Your task to perform on an android device: toggle pop-ups in chrome Image 0: 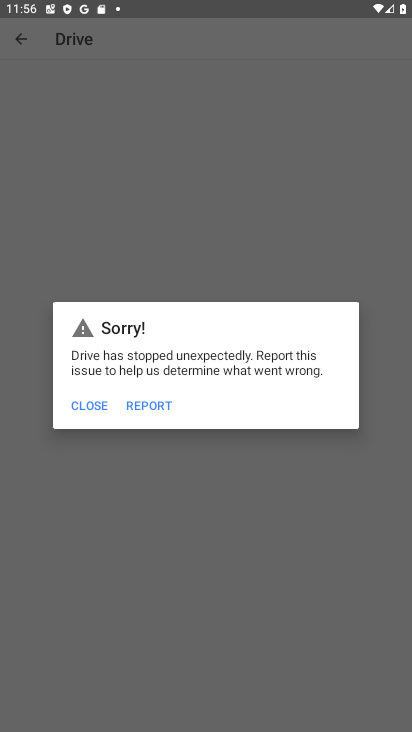
Step 0: press home button
Your task to perform on an android device: toggle pop-ups in chrome Image 1: 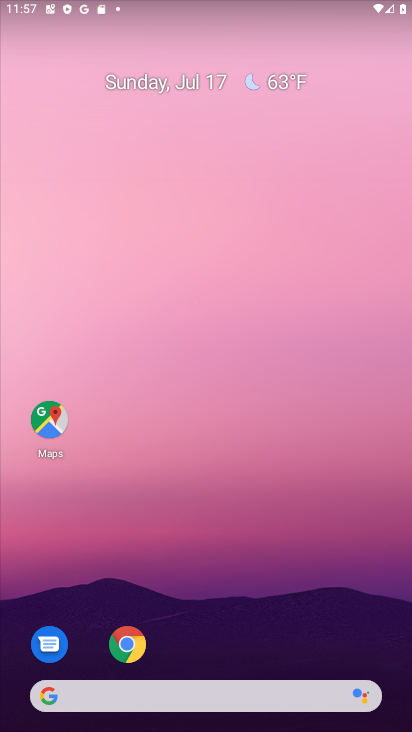
Step 1: drag from (244, 651) to (179, 287)
Your task to perform on an android device: toggle pop-ups in chrome Image 2: 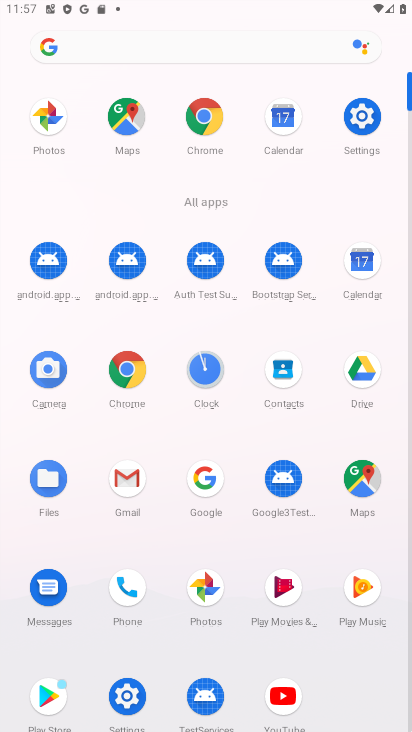
Step 2: click (202, 127)
Your task to perform on an android device: toggle pop-ups in chrome Image 3: 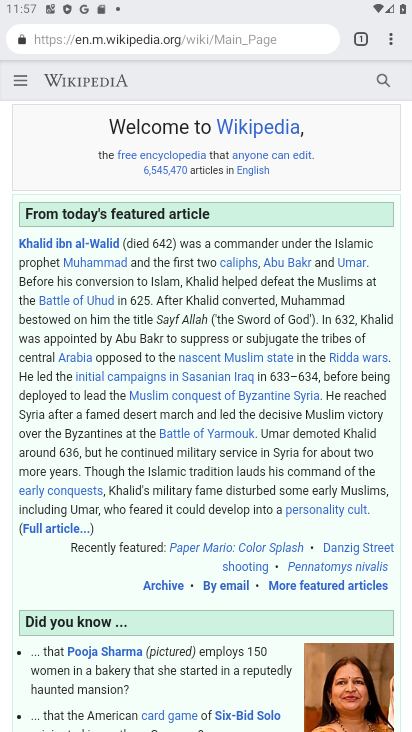
Step 3: click (395, 35)
Your task to perform on an android device: toggle pop-ups in chrome Image 4: 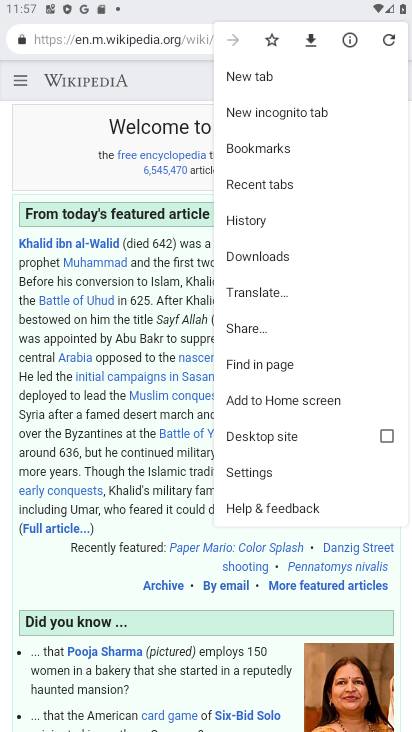
Step 4: click (286, 472)
Your task to perform on an android device: toggle pop-ups in chrome Image 5: 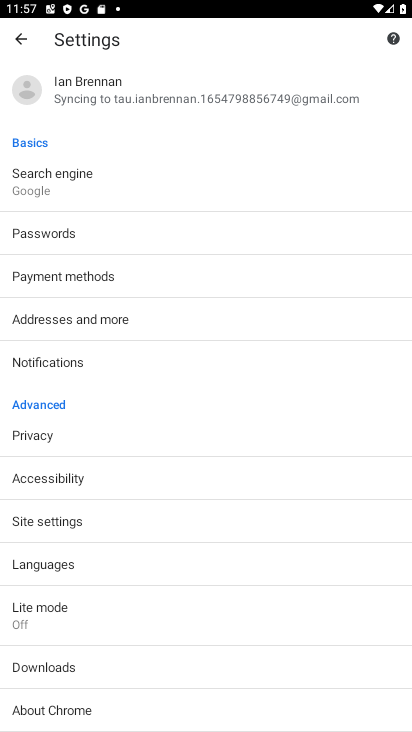
Step 5: click (201, 521)
Your task to perform on an android device: toggle pop-ups in chrome Image 6: 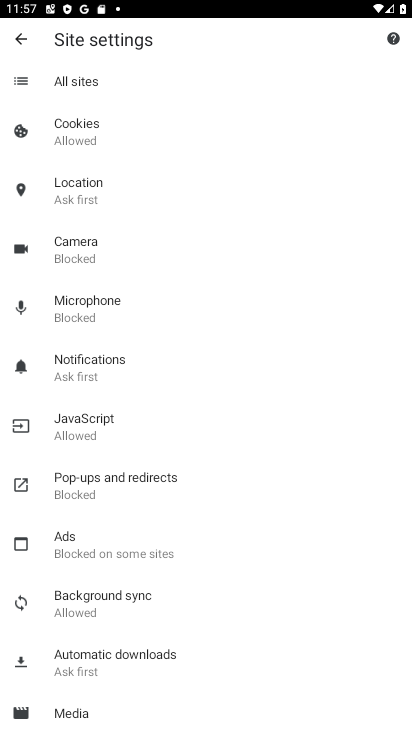
Step 6: click (148, 498)
Your task to perform on an android device: toggle pop-ups in chrome Image 7: 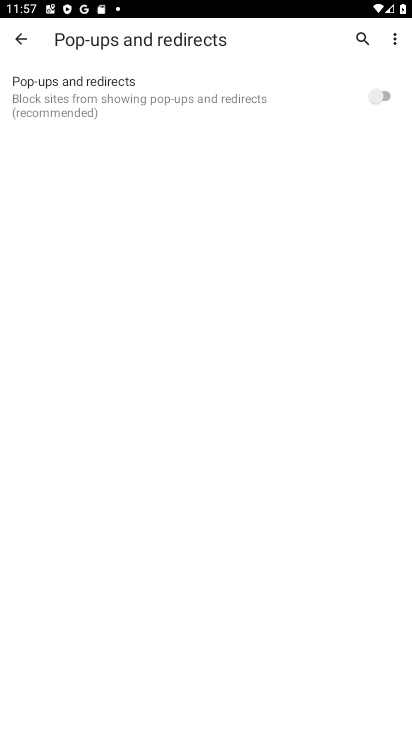
Step 7: click (383, 99)
Your task to perform on an android device: toggle pop-ups in chrome Image 8: 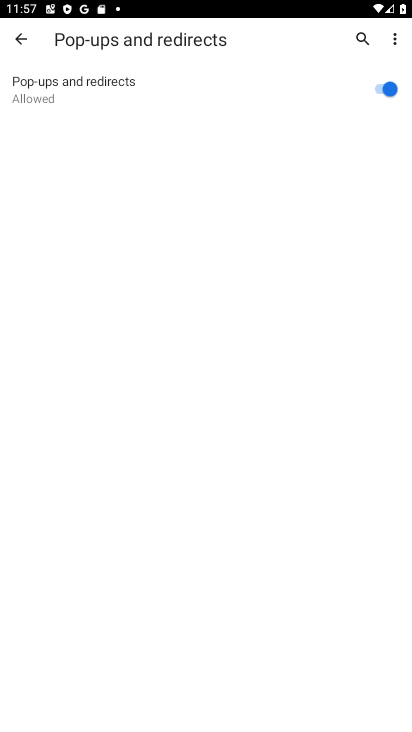
Step 8: task complete